Your task to perform on an android device: Open sound settings Image 0: 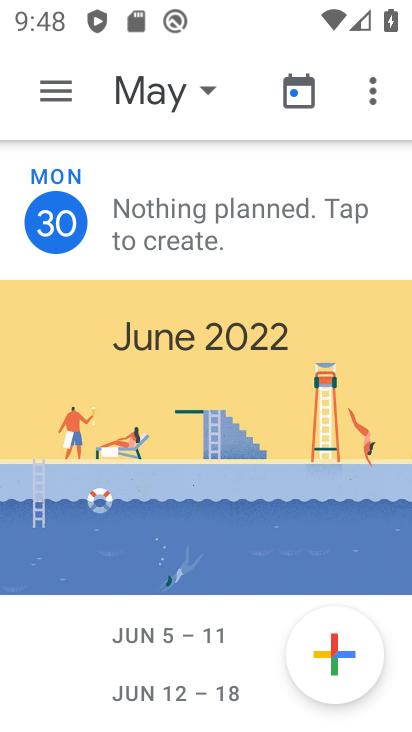
Step 0: press home button
Your task to perform on an android device: Open sound settings Image 1: 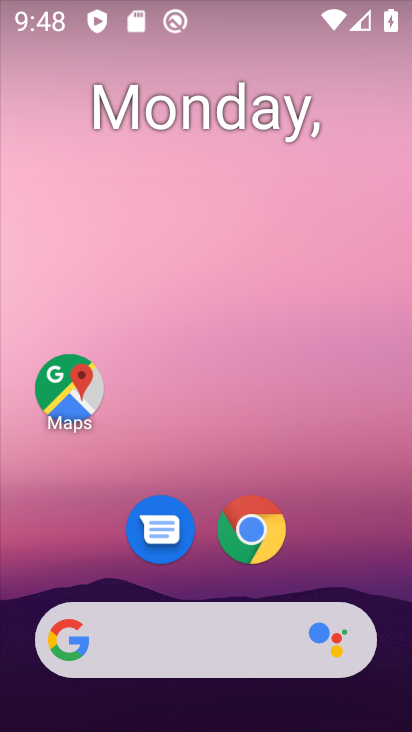
Step 1: drag from (331, 556) to (289, 21)
Your task to perform on an android device: Open sound settings Image 2: 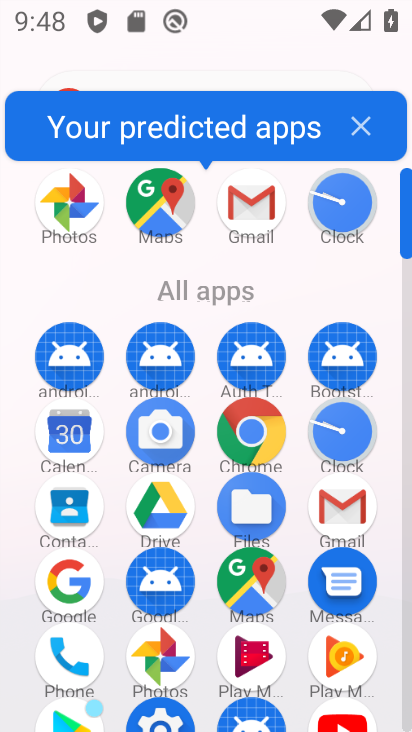
Step 2: drag from (200, 405) to (230, 212)
Your task to perform on an android device: Open sound settings Image 3: 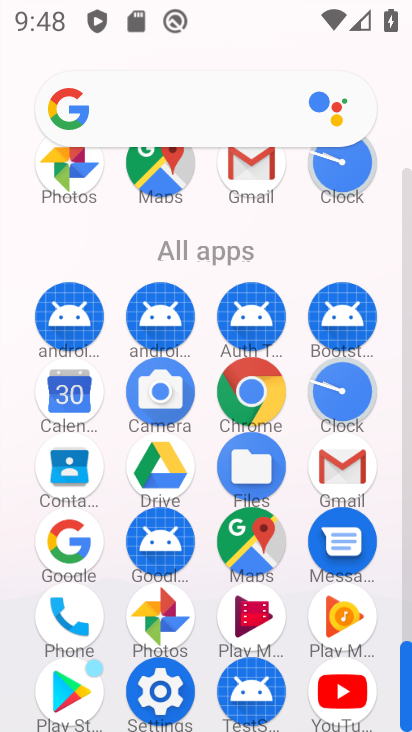
Step 3: click (160, 690)
Your task to perform on an android device: Open sound settings Image 4: 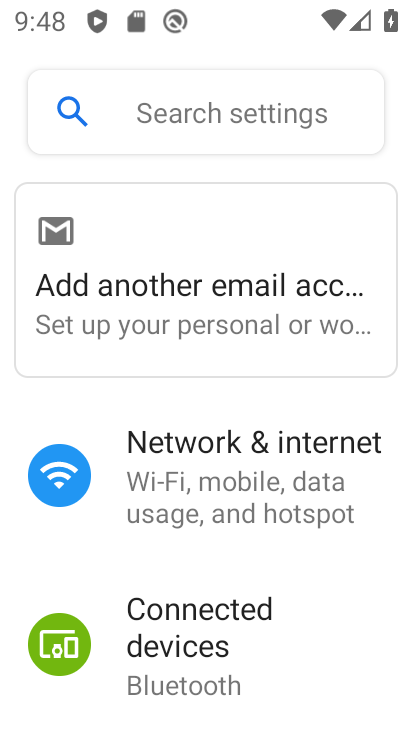
Step 4: drag from (160, 584) to (199, 423)
Your task to perform on an android device: Open sound settings Image 5: 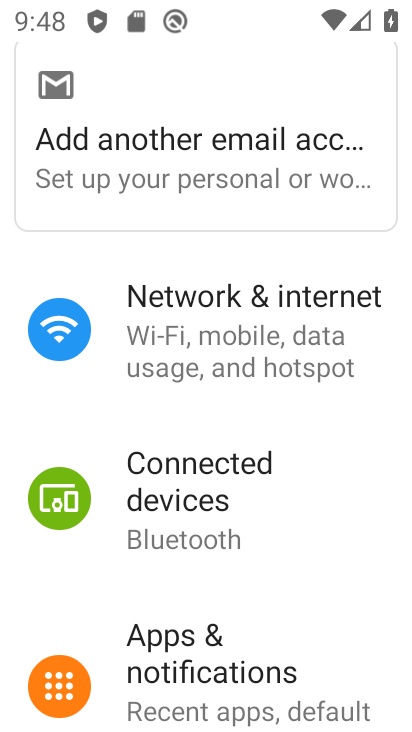
Step 5: drag from (169, 592) to (228, 453)
Your task to perform on an android device: Open sound settings Image 6: 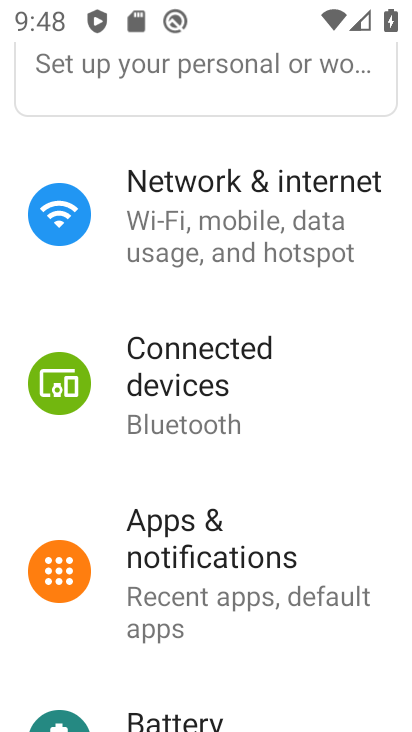
Step 6: drag from (197, 632) to (315, 484)
Your task to perform on an android device: Open sound settings Image 7: 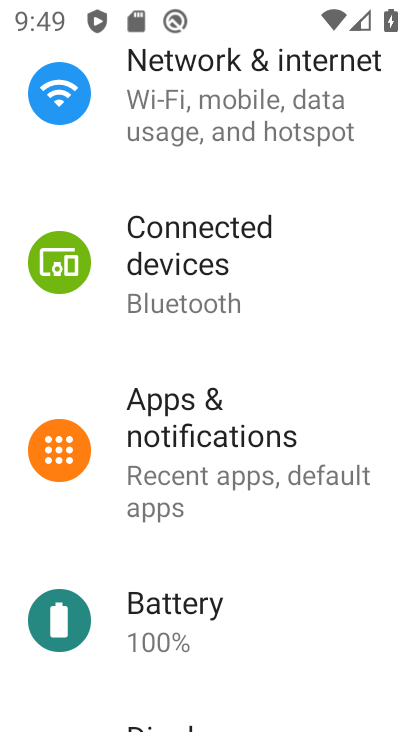
Step 7: drag from (220, 663) to (321, 473)
Your task to perform on an android device: Open sound settings Image 8: 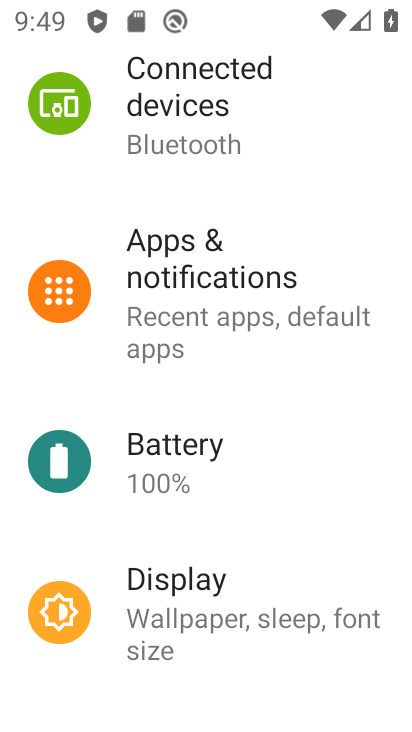
Step 8: drag from (211, 666) to (313, 473)
Your task to perform on an android device: Open sound settings Image 9: 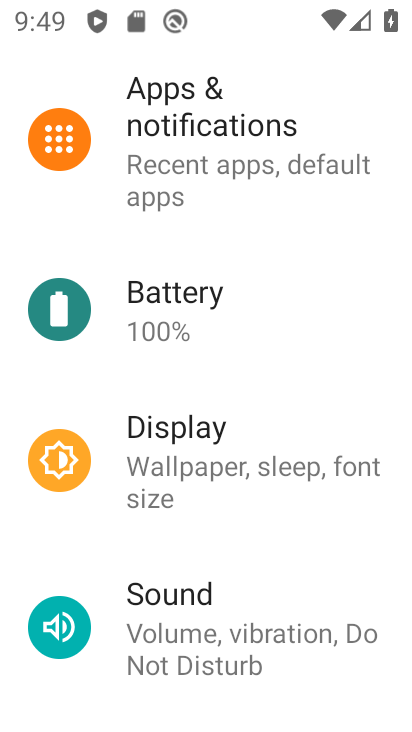
Step 9: click (190, 606)
Your task to perform on an android device: Open sound settings Image 10: 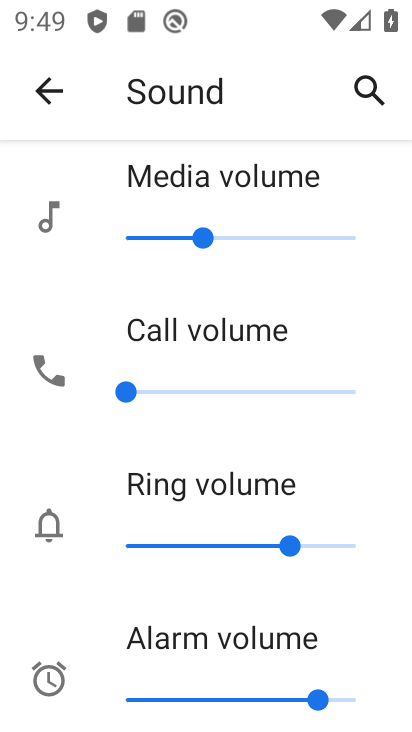
Step 10: task complete